Your task to perform on an android device: Search for logitech g pro on walmart.com, select the first entry, add it to the cart, then select checkout. Image 0: 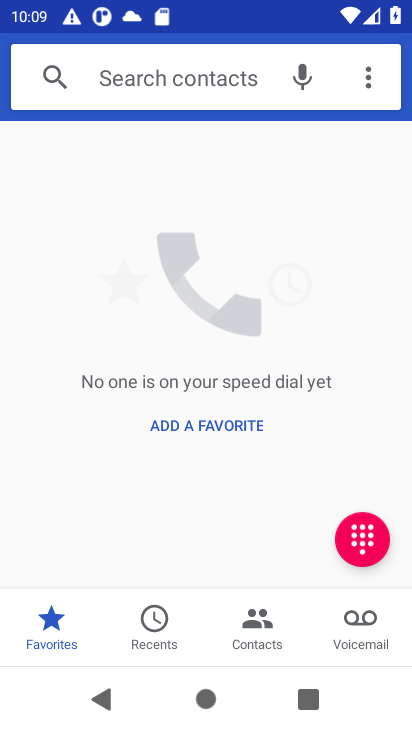
Step 0: press home button
Your task to perform on an android device: Search for logitech g pro on walmart.com, select the first entry, add it to the cart, then select checkout. Image 1: 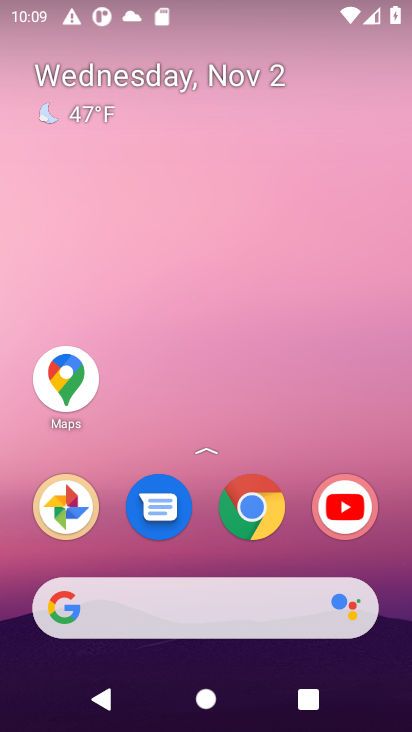
Step 1: press home button
Your task to perform on an android device: Search for logitech g pro on walmart.com, select the first entry, add it to the cart, then select checkout. Image 2: 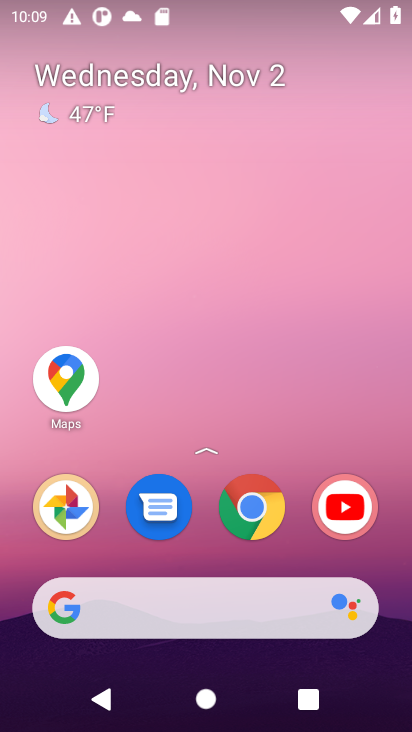
Step 2: click (161, 611)
Your task to perform on an android device: Search for logitech g pro on walmart.com, select the first entry, add it to the cart, then select checkout. Image 3: 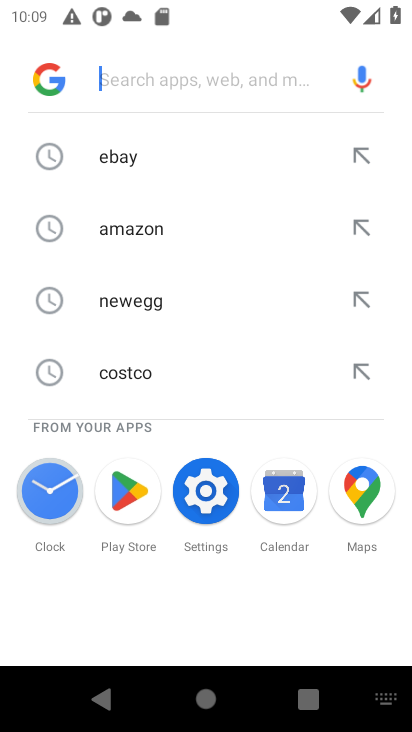
Step 3: type "walmart"
Your task to perform on an android device: Search for logitech g pro on walmart.com, select the first entry, add it to the cart, then select checkout. Image 4: 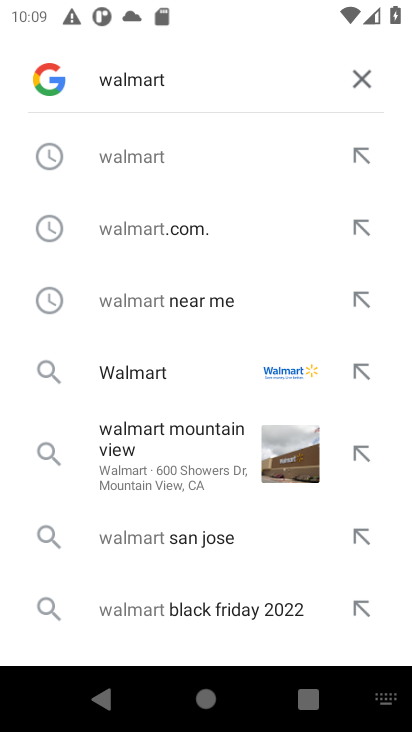
Step 4: click (160, 157)
Your task to perform on an android device: Search for logitech g pro on walmart.com, select the first entry, add it to the cart, then select checkout. Image 5: 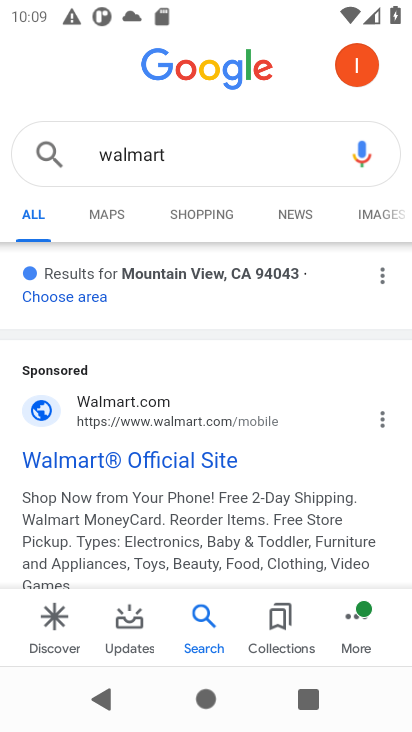
Step 5: click (121, 452)
Your task to perform on an android device: Search for logitech g pro on walmart.com, select the first entry, add it to the cart, then select checkout. Image 6: 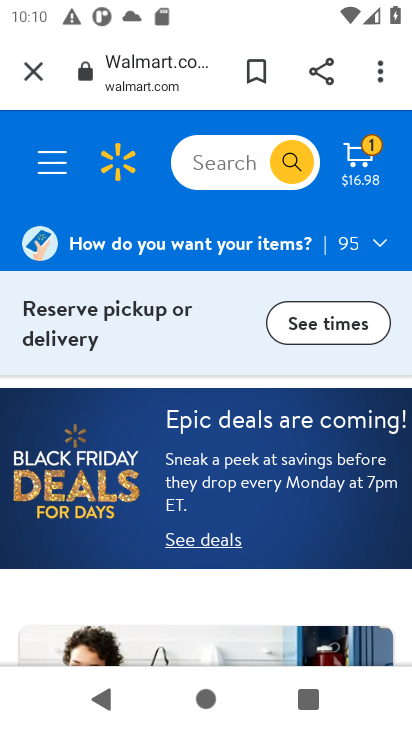
Step 6: click (200, 174)
Your task to perform on an android device: Search for logitech g pro on walmart.com, select the first entry, add it to the cart, then select checkout. Image 7: 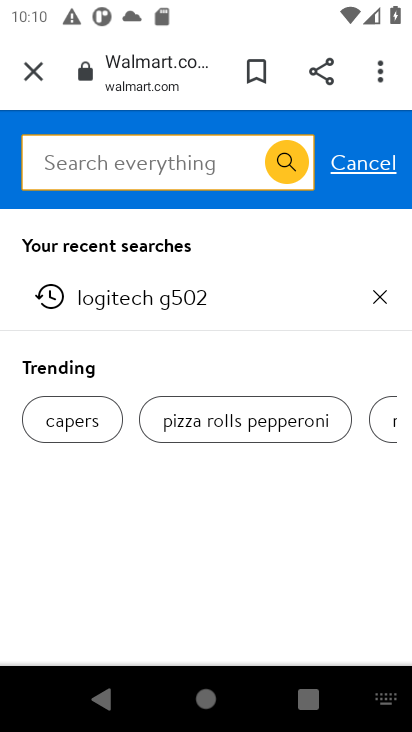
Step 7: click (176, 315)
Your task to perform on an android device: Search for logitech g pro on walmart.com, select the first entry, add it to the cart, then select checkout. Image 8: 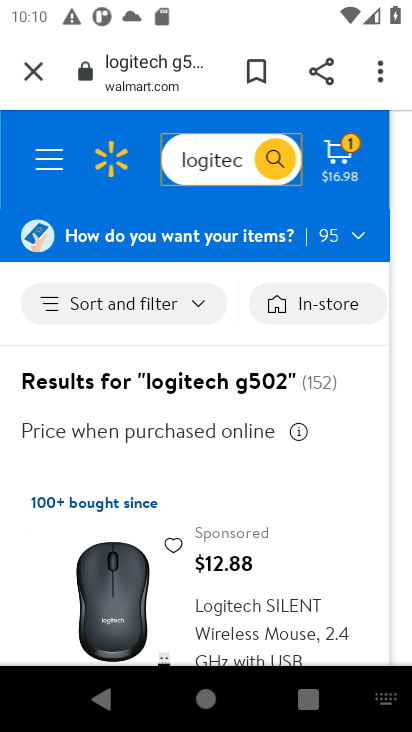
Step 8: click (228, 590)
Your task to perform on an android device: Search for logitech g pro on walmart.com, select the first entry, add it to the cart, then select checkout. Image 9: 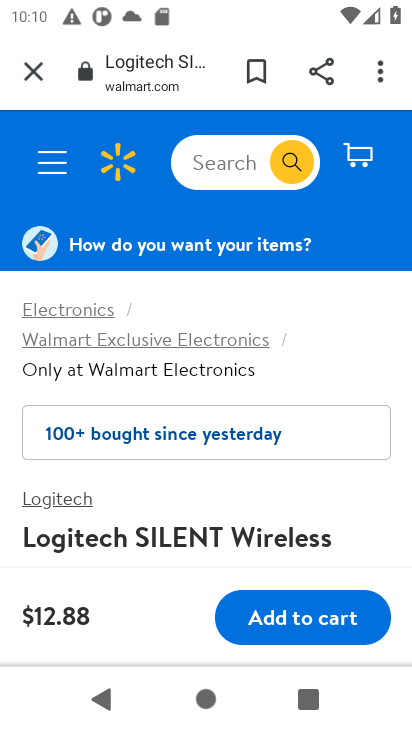
Step 9: click (264, 604)
Your task to perform on an android device: Search for logitech g pro on walmart.com, select the first entry, add it to the cart, then select checkout. Image 10: 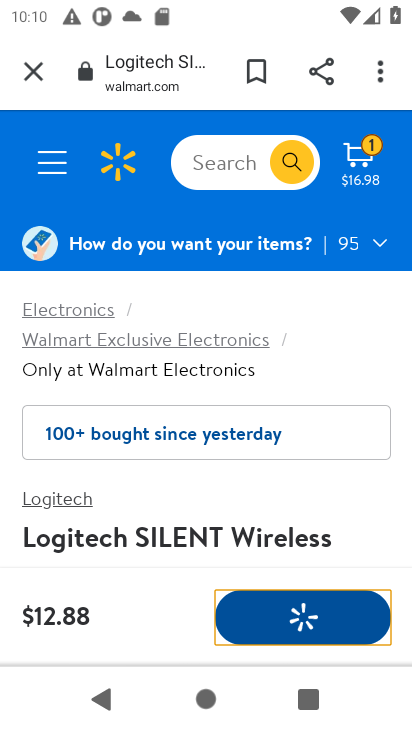
Step 10: task complete